Your task to perform on an android device: change notification settings in the gmail app Image 0: 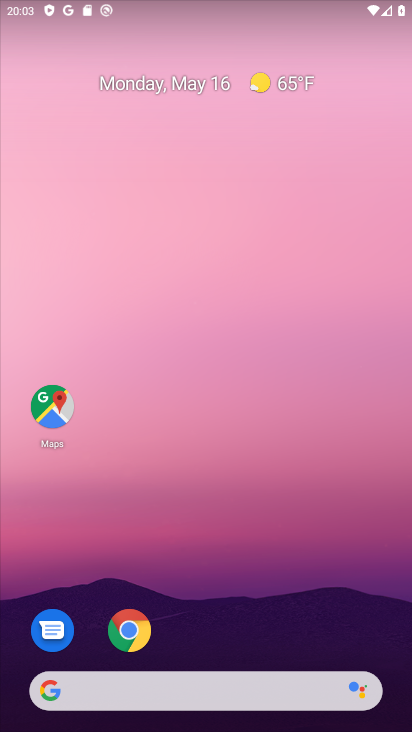
Step 0: drag from (213, 638) to (159, 168)
Your task to perform on an android device: change notification settings in the gmail app Image 1: 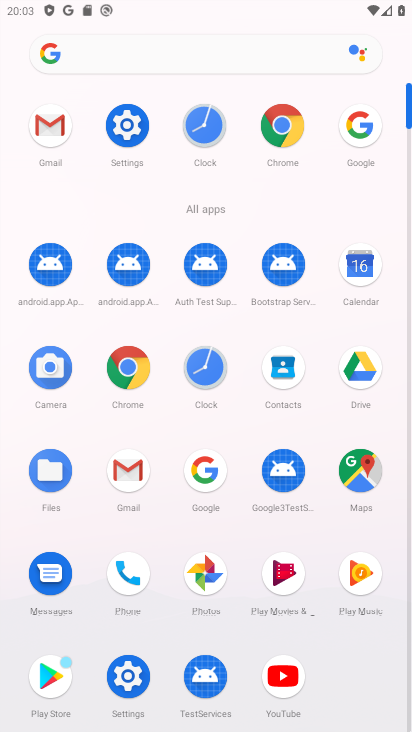
Step 1: click (38, 117)
Your task to perform on an android device: change notification settings in the gmail app Image 2: 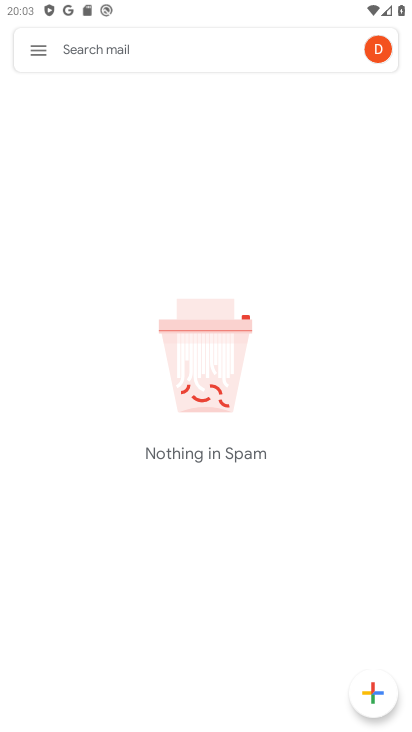
Step 2: click (28, 53)
Your task to perform on an android device: change notification settings in the gmail app Image 3: 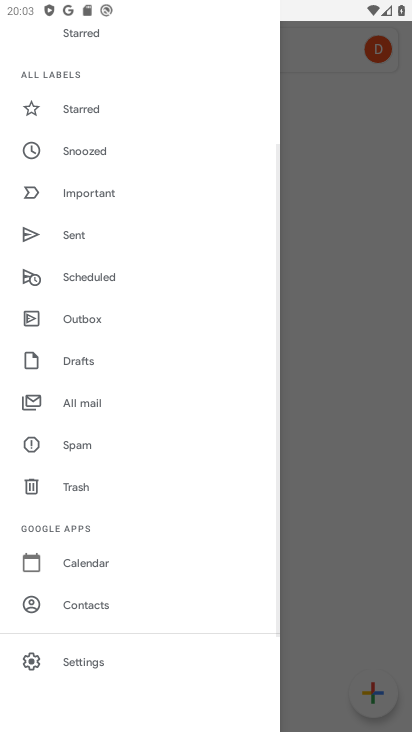
Step 3: click (118, 669)
Your task to perform on an android device: change notification settings in the gmail app Image 4: 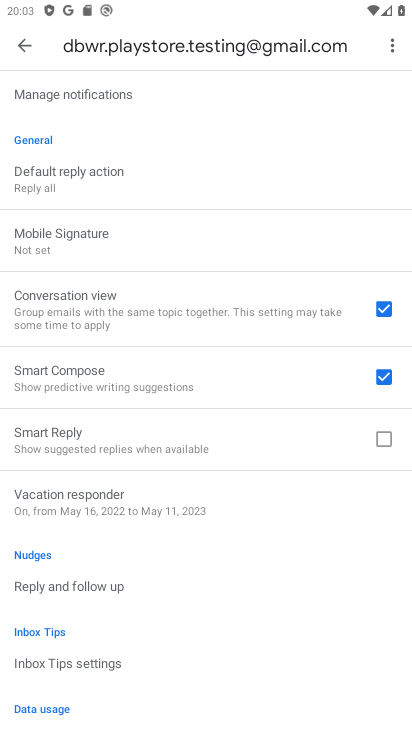
Step 4: drag from (122, 551) to (146, 287)
Your task to perform on an android device: change notification settings in the gmail app Image 5: 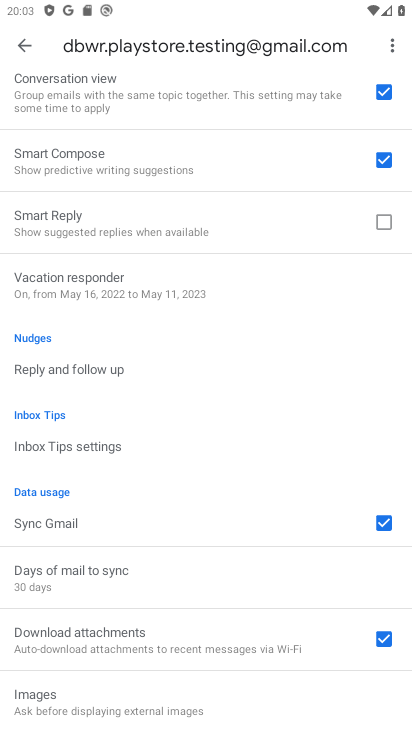
Step 5: drag from (128, 568) to (163, 551)
Your task to perform on an android device: change notification settings in the gmail app Image 6: 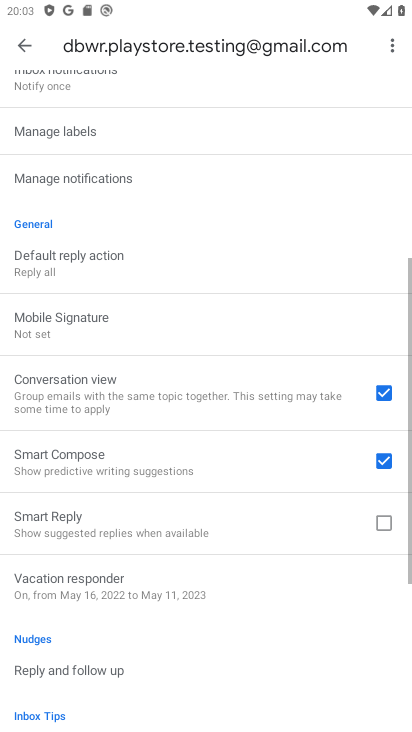
Step 6: drag from (141, 328) to (161, 586)
Your task to perform on an android device: change notification settings in the gmail app Image 7: 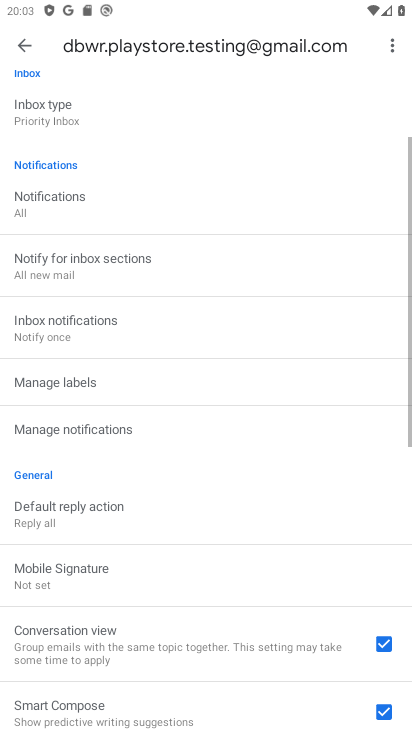
Step 7: drag from (142, 305) to (163, 471)
Your task to perform on an android device: change notification settings in the gmail app Image 8: 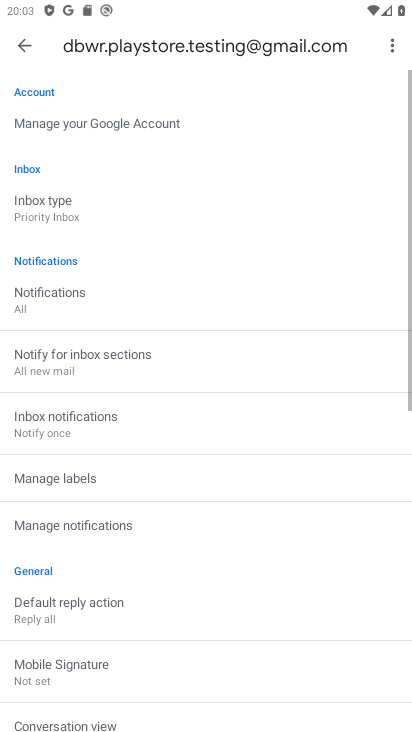
Step 8: click (113, 526)
Your task to perform on an android device: change notification settings in the gmail app Image 9: 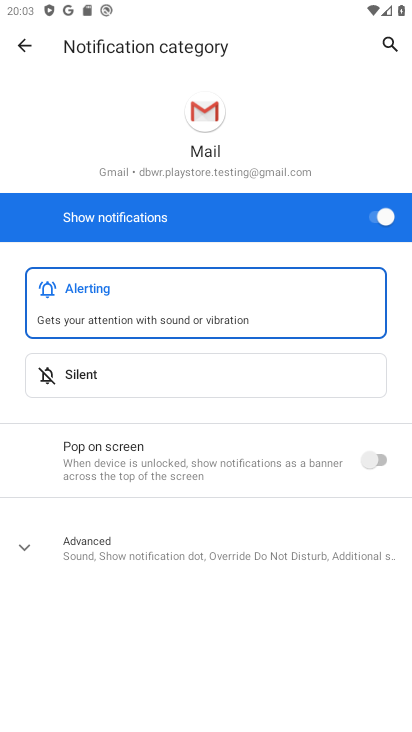
Step 9: click (375, 218)
Your task to perform on an android device: change notification settings in the gmail app Image 10: 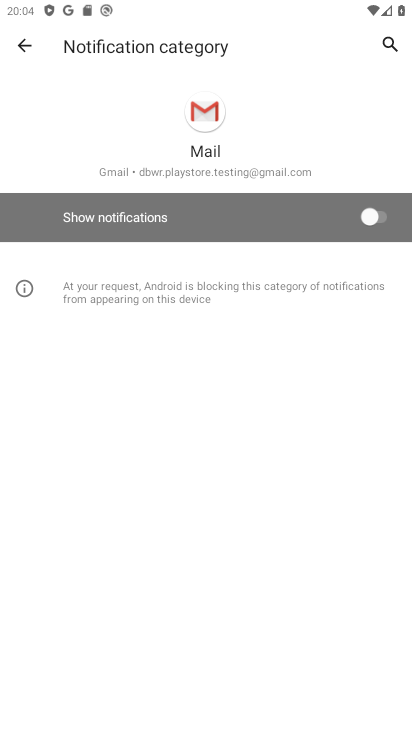
Step 10: task complete